Your task to perform on an android device: check data usage Image 0: 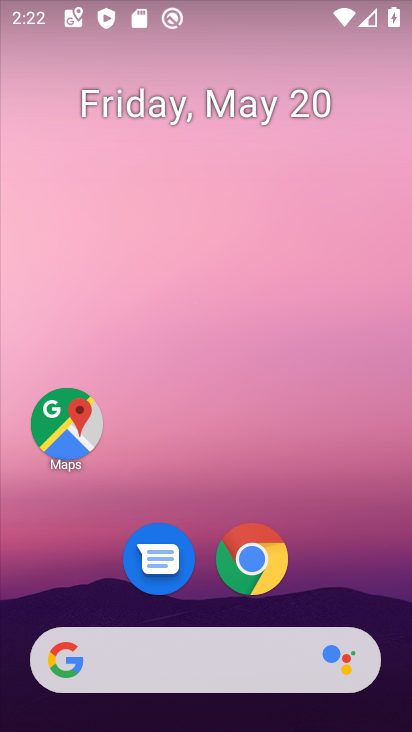
Step 0: drag from (201, 470) to (184, 45)
Your task to perform on an android device: check data usage Image 1: 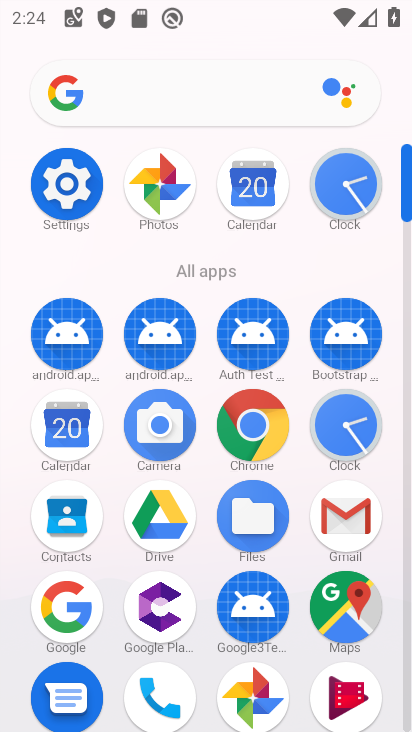
Step 1: click (82, 172)
Your task to perform on an android device: check data usage Image 2: 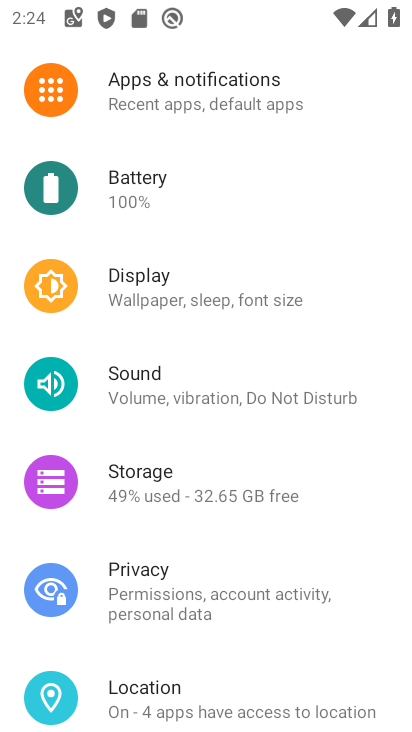
Step 2: drag from (238, 184) to (243, 643)
Your task to perform on an android device: check data usage Image 3: 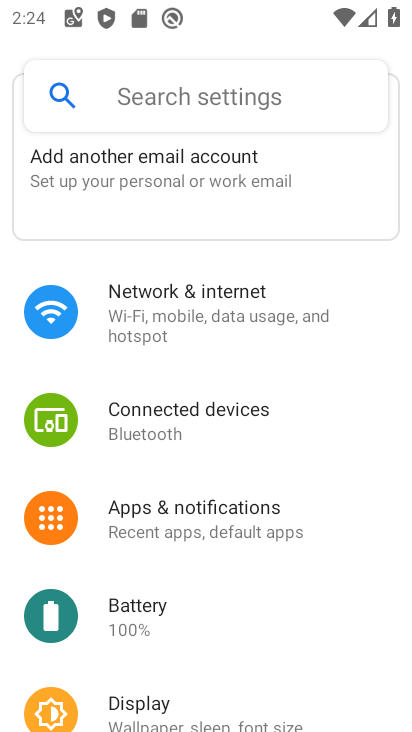
Step 3: click (264, 291)
Your task to perform on an android device: check data usage Image 4: 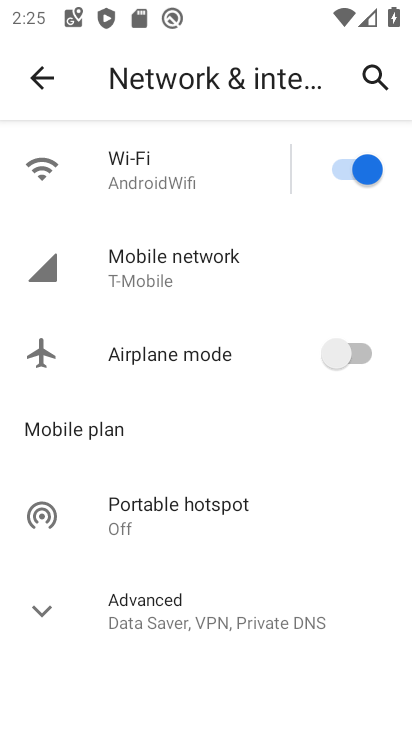
Step 4: click (208, 265)
Your task to perform on an android device: check data usage Image 5: 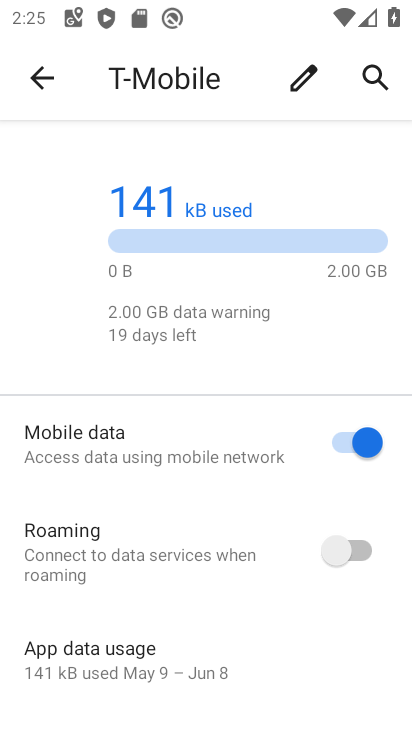
Step 5: task complete